Your task to perform on an android device: Open Youtube and go to "Your channel" Image 0: 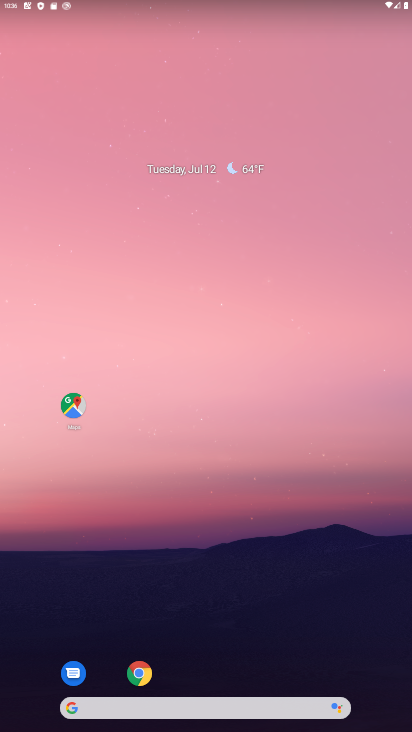
Step 0: drag from (333, 609) to (241, 192)
Your task to perform on an android device: Open Youtube and go to "Your channel" Image 1: 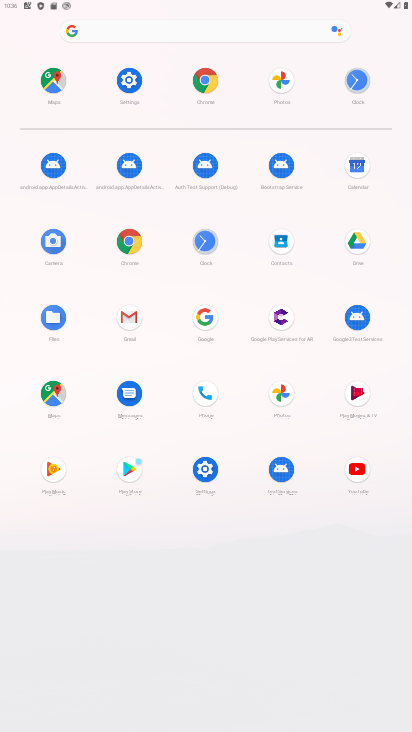
Step 1: click (361, 470)
Your task to perform on an android device: Open Youtube and go to "Your channel" Image 2: 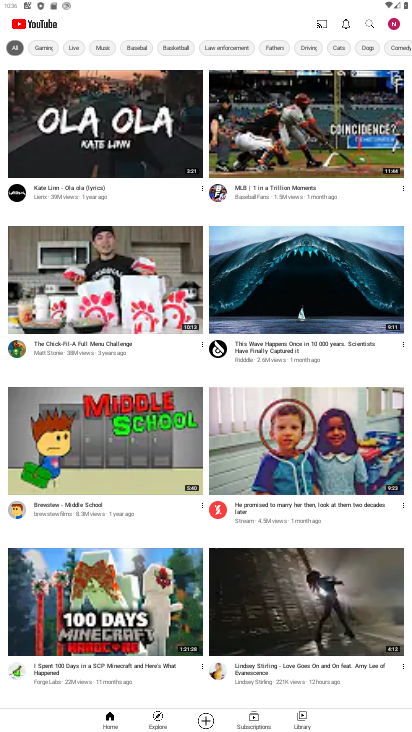
Step 2: click (394, 20)
Your task to perform on an android device: Open Youtube and go to "Your channel" Image 3: 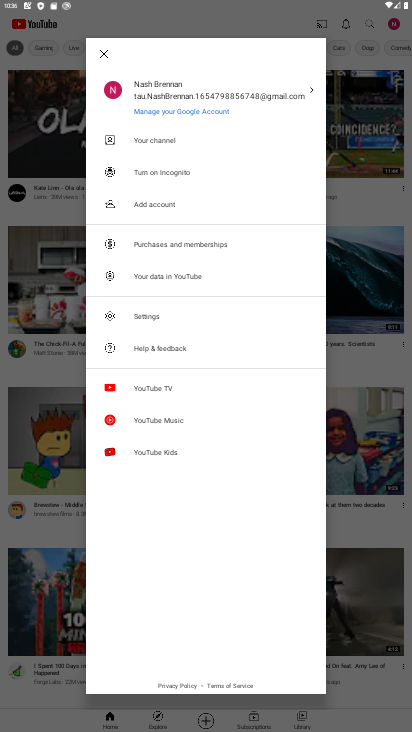
Step 3: click (143, 141)
Your task to perform on an android device: Open Youtube and go to "Your channel" Image 4: 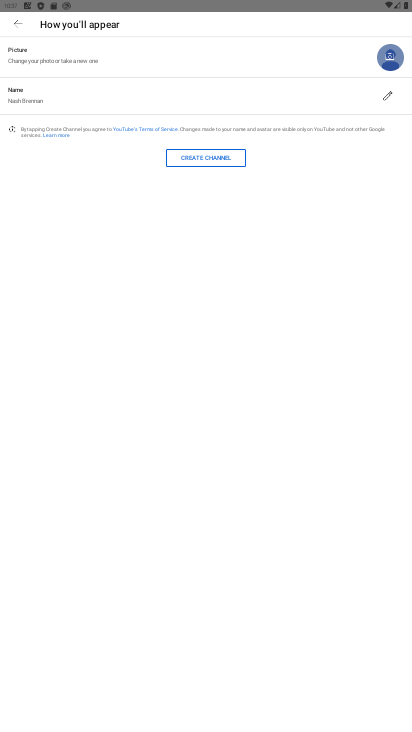
Step 4: task complete